Your task to perform on an android device: Go to Amazon Image 0: 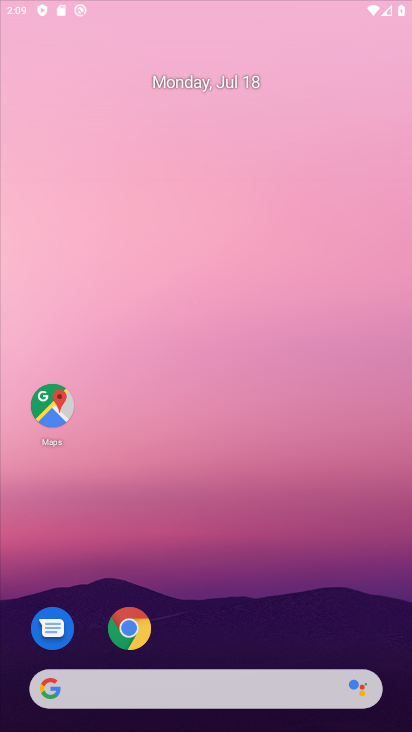
Step 0: drag from (340, 298) to (241, 23)
Your task to perform on an android device: Go to Amazon Image 1: 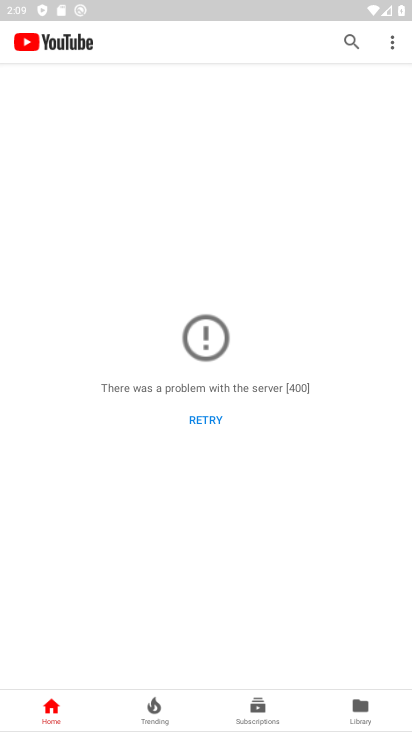
Step 1: press home button
Your task to perform on an android device: Go to Amazon Image 2: 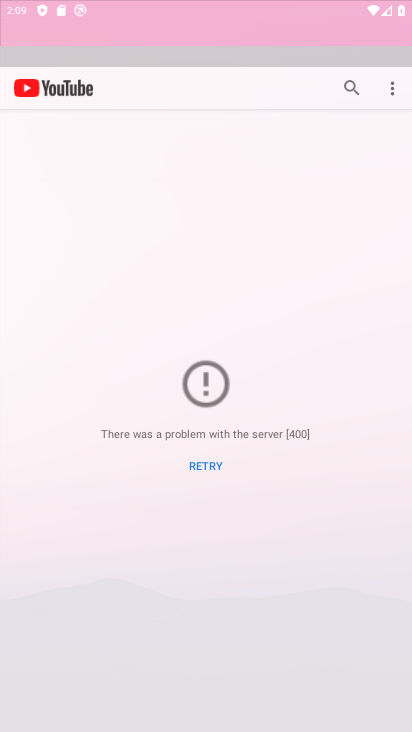
Step 2: drag from (384, 715) to (264, 17)
Your task to perform on an android device: Go to Amazon Image 3: 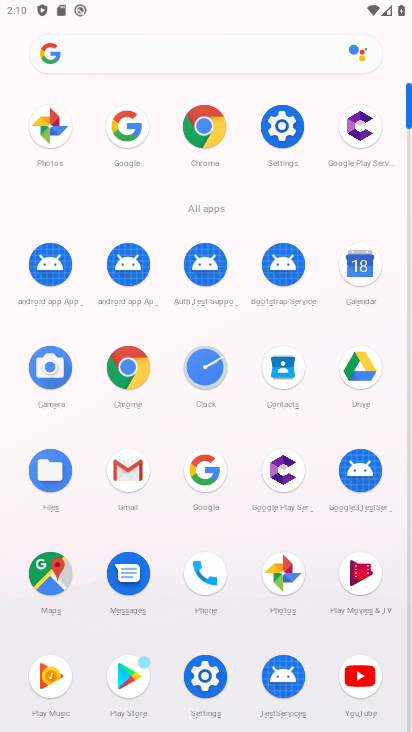
Step 3: click (208, 491)
Your task to perform on an android device: Go to Amazon Image 4: 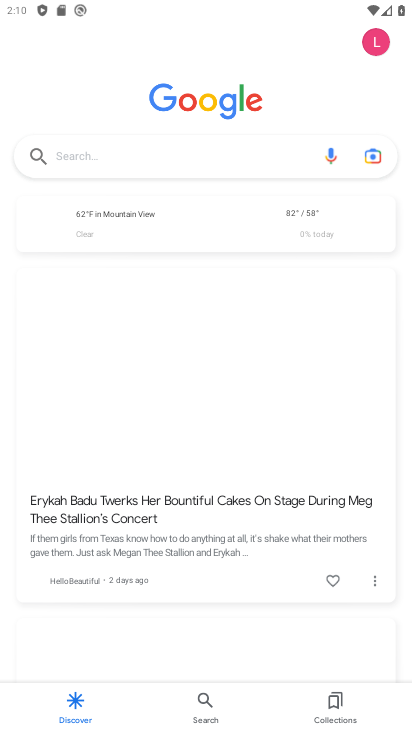
Step 4: click (107, 168)
Your task to perform on an android device: Go to Amazon Image 5: 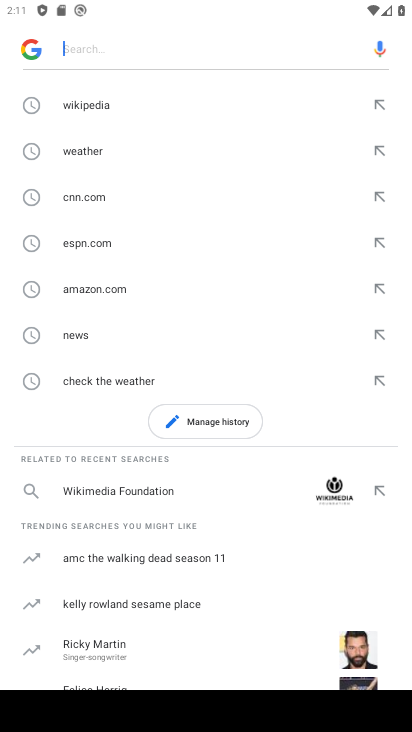
Step 5: type "Amazon"
Your task to perform on an android device: Go to Amazon Image 6: 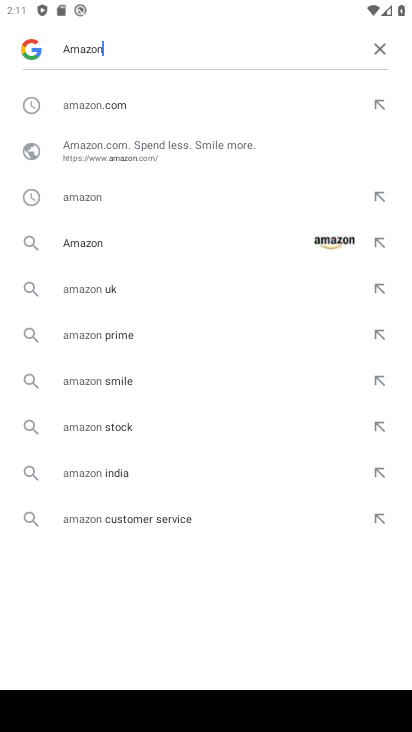
Step 6: click (308, 237)
Your task to perform on an android device: Go to Amazon Image 7: 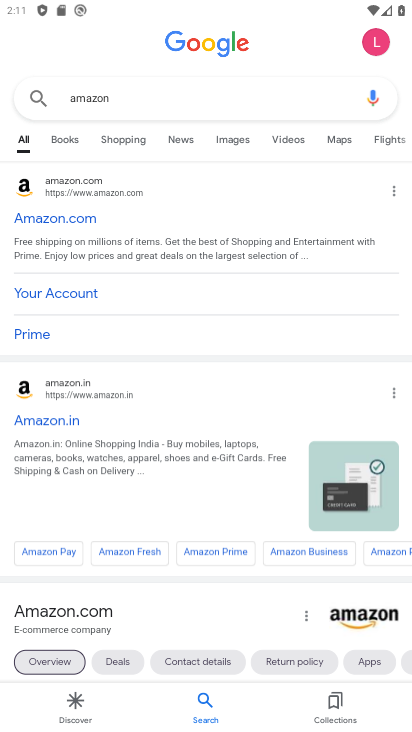
Step 7: task complete